Your task to perform on an android device: Set the phone to "Do not disturb". Image 0: 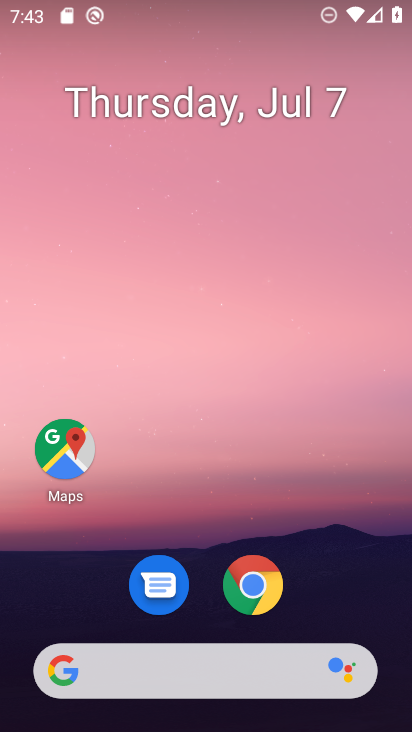
Step 0: drag from (238, 663) to (237, 72)
Your task to perform on an android device: Set the phone to "Do not disturb". Image 1: 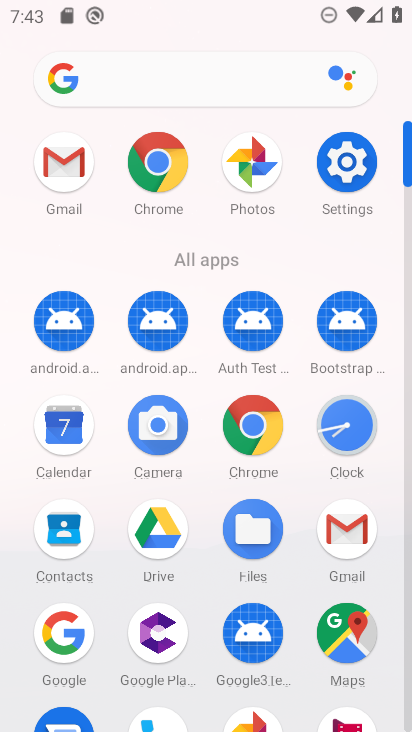
Step 1: click (343, 165)
Your task to perform on an android device: Set the phone to "Do not disturb". Image 2: 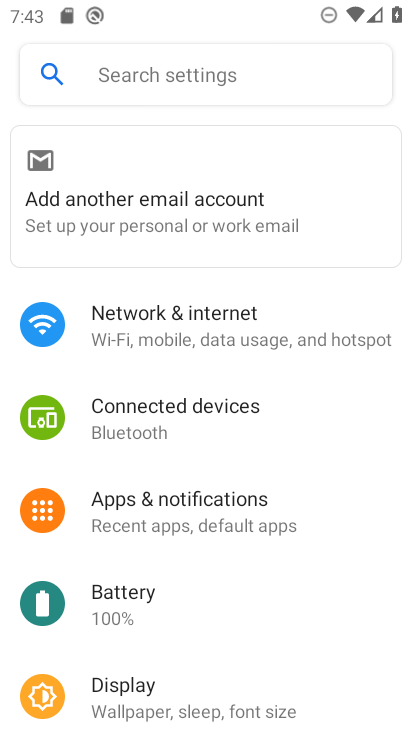
Step 2: drag from (237, 624) to (270, 166)
Your task to perform on an android device: Set the phone to "Do not disturb". Image 3: 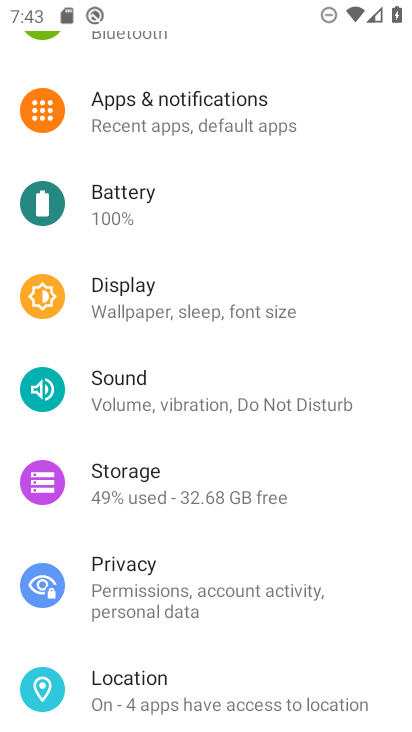
Step 3: click (193, 403)
Your task to perform on an android device: Set the phone to "Do not disturb". Image 4: 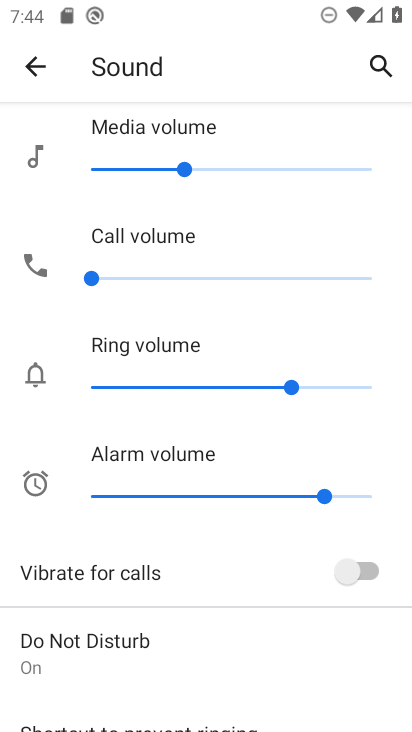
Step 4: task complete